Your task to perform on an android device: Open notification settings Image 0: 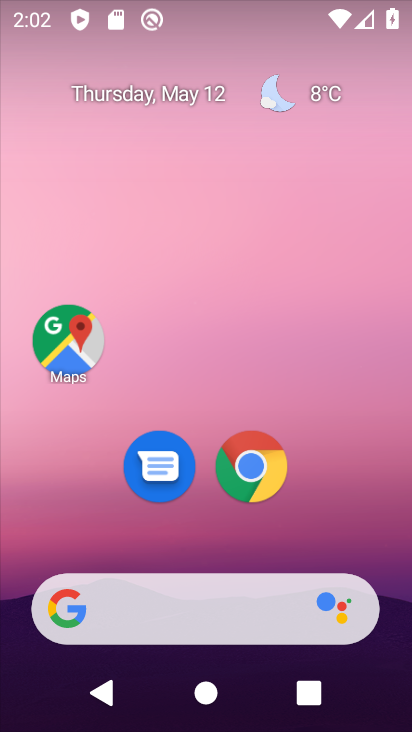
Step 0: drag from (320, 538) to (312, 145)
Your task to perform on an android device: Open notification settings Image 1: 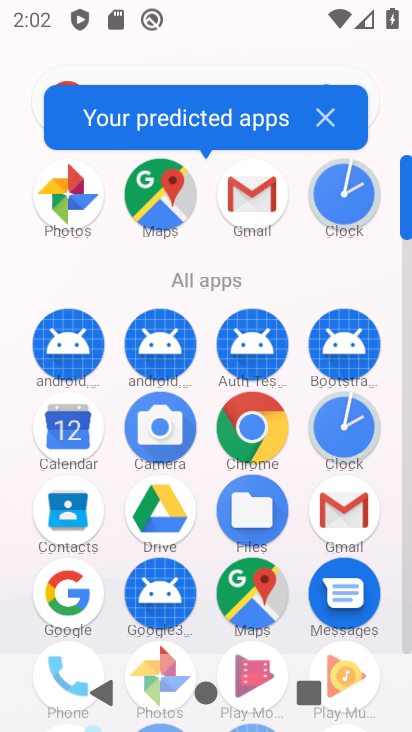
Step 1: drag from (203, 594) to (209, 232)
Your task to perform on an android device: Open notification settings Image 2: 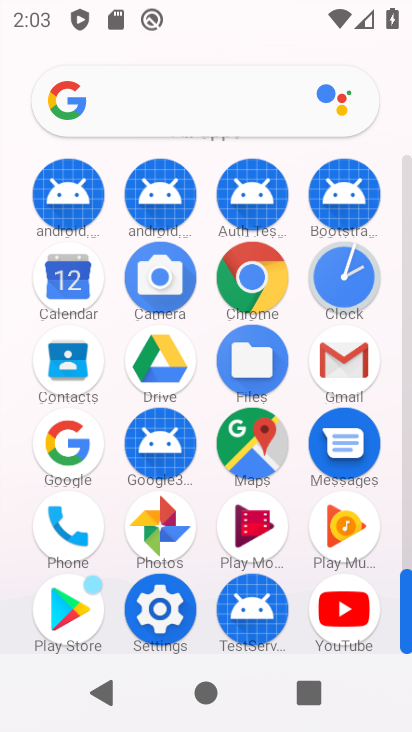
Step 2: click (155, 617)
Your task to perform on an android device: Open notification settings Image 3: 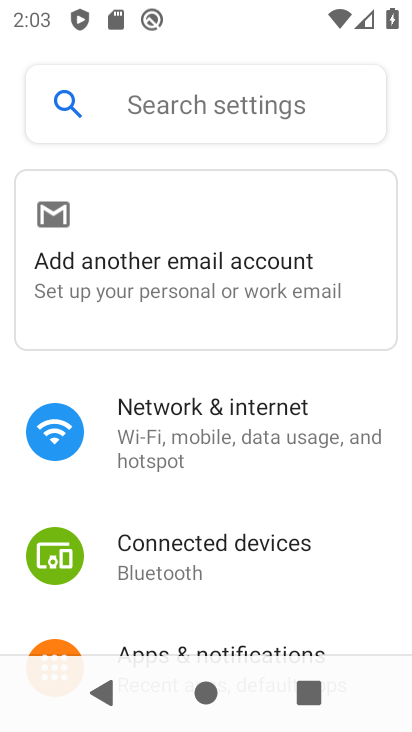
Step 3: drag from (166, 614) to (160, 226)
Your task to perform on an android device: Open notification settings Image 4: 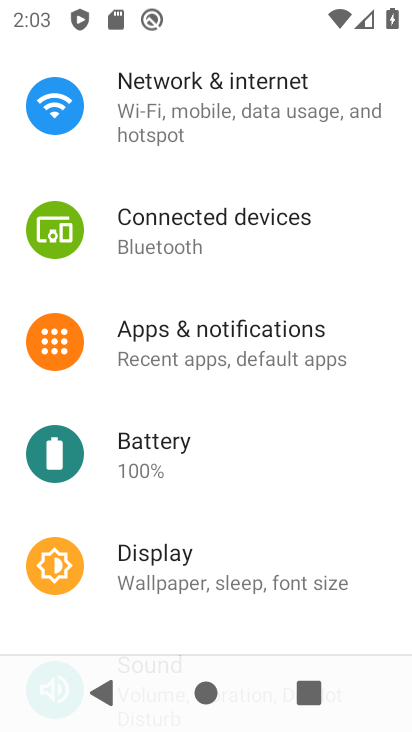
Step 4: click (163, 344)
Your task to perform on an android device: Open notification settings Image 5: 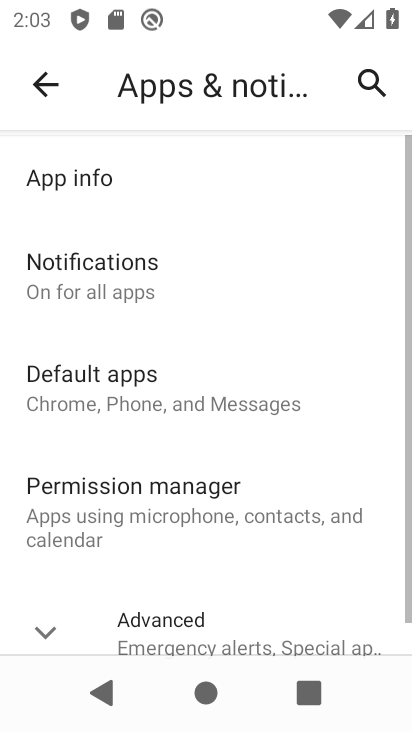
Step 5: click (135, 277)
Your task to perform on an android device: Open notification settings Image 6: 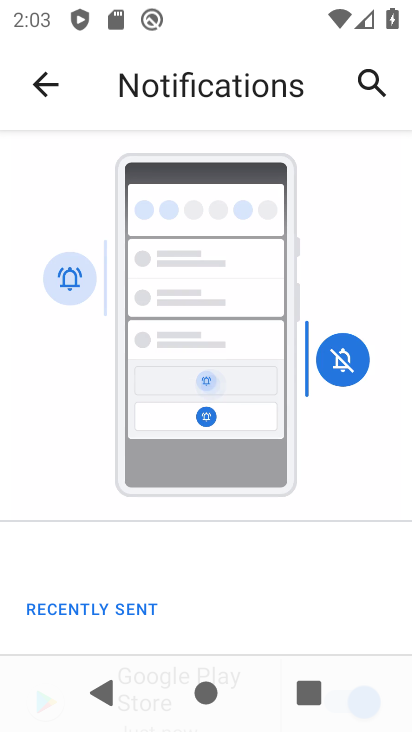
Step 6: task complete